Your task to perform on an android device: turn on the 24-hour format for clock Image 0: 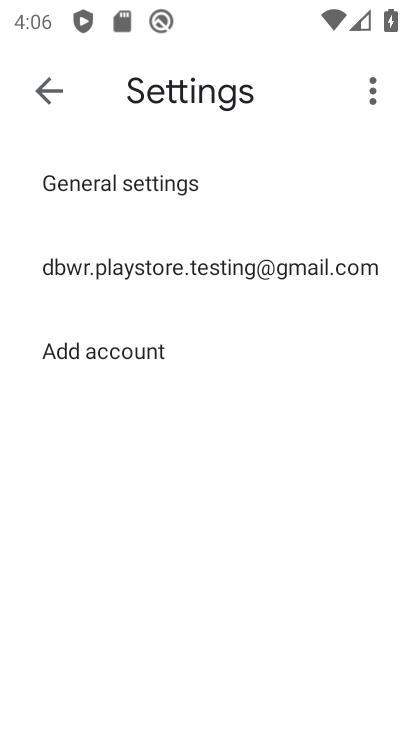
Step 0: press home button
Your task to perform on an android device: turn on the 24-hour format for clock Image 1: 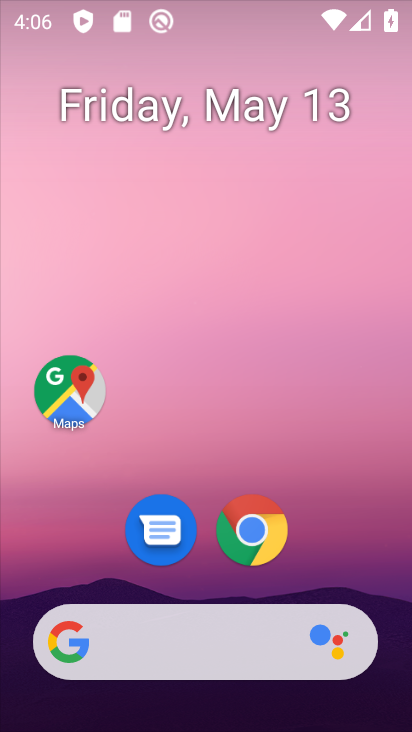
Step 1: drag from (272, 686) to (386, 83)
Your task to perform on an android device: turn on the 24-hour format for clock Image 2: 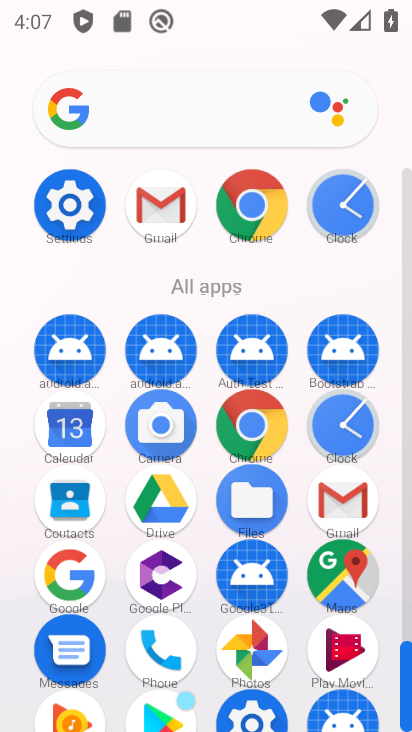
Step 2: click (341, 420)
Your task to perform on an android device: turn on the 24-hour format for clock Image 3: 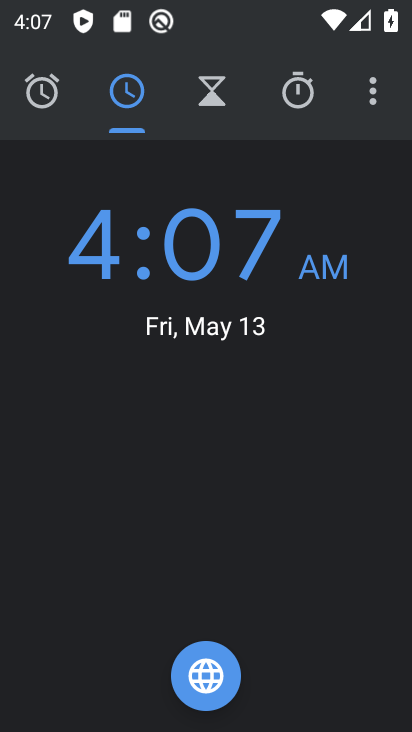
Step 3: click (353, 111)
Your task to perform on an android device: turn on the 24-hour format for clock Image 4: 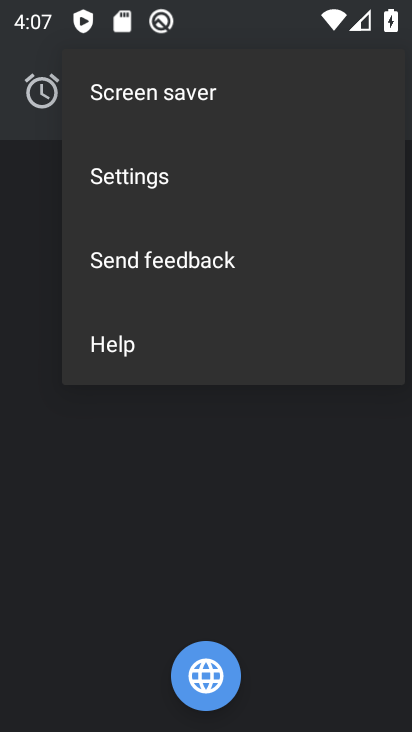
Step 4: click (260, 170)
Your task to perform on an android device: turn on the 24-hour format for clock Image 5: 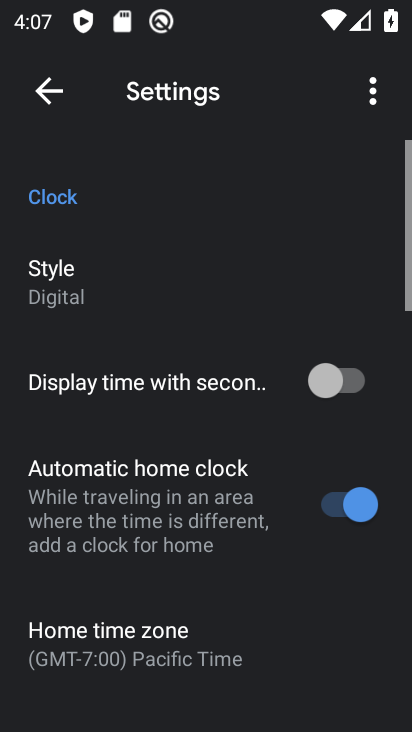
Step 5: drag from (242, 558) to (318, 263)
Your task to perform on an android device: turn on the 24-hour format for clock Image 6: 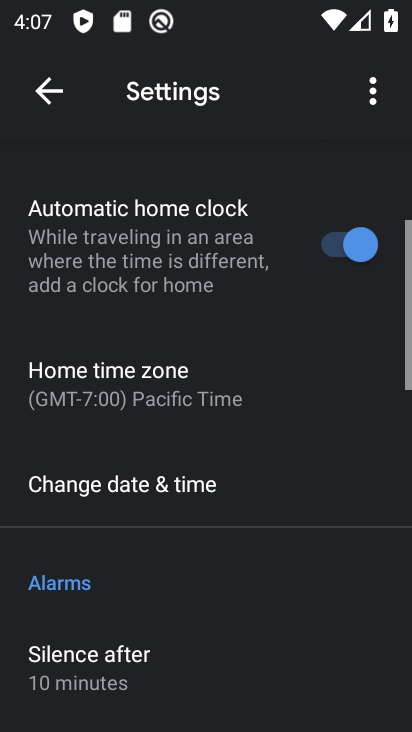
Step 6: click (192, 481)
Your task to perform on an android device: turn on the 24-hour format for clock Image 7: 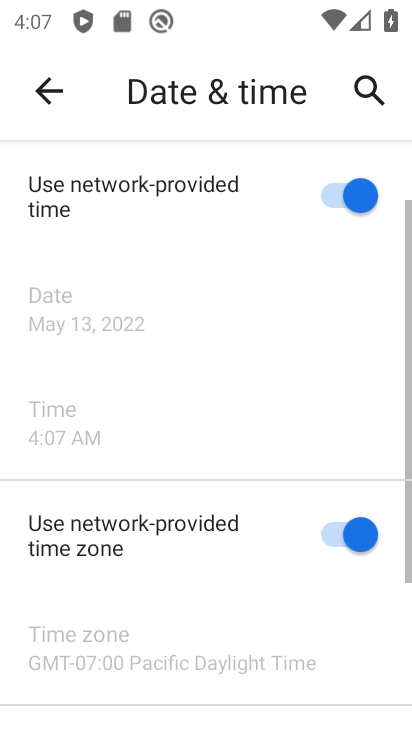
Step 7: drag from (246, 552) to (332, 199)
Your task to perform on an android device: turn on the 24-hour format for clock Image 8: 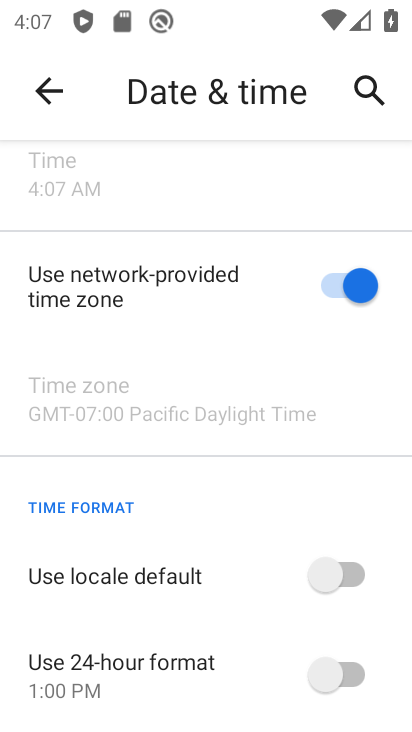
Step 8: click (348, 675)
Your task to perform on an android device: turn on the 24-hour format for clock Image 9: 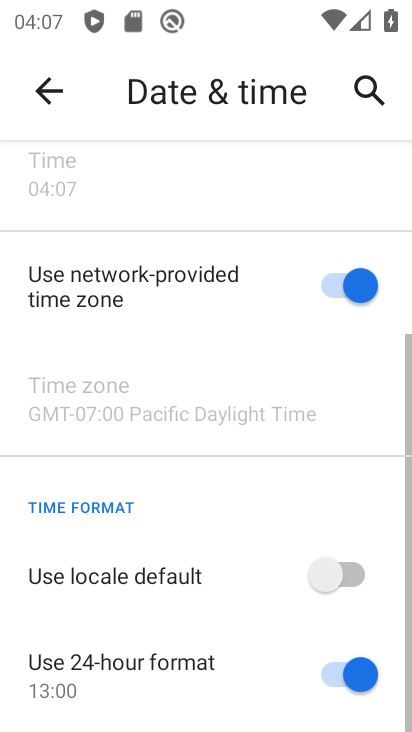
Step 9: task complete